Your task to perform on an android device: Search for "macbook pro" on amazon, select the first entry, and add it to the cart. Image 0: 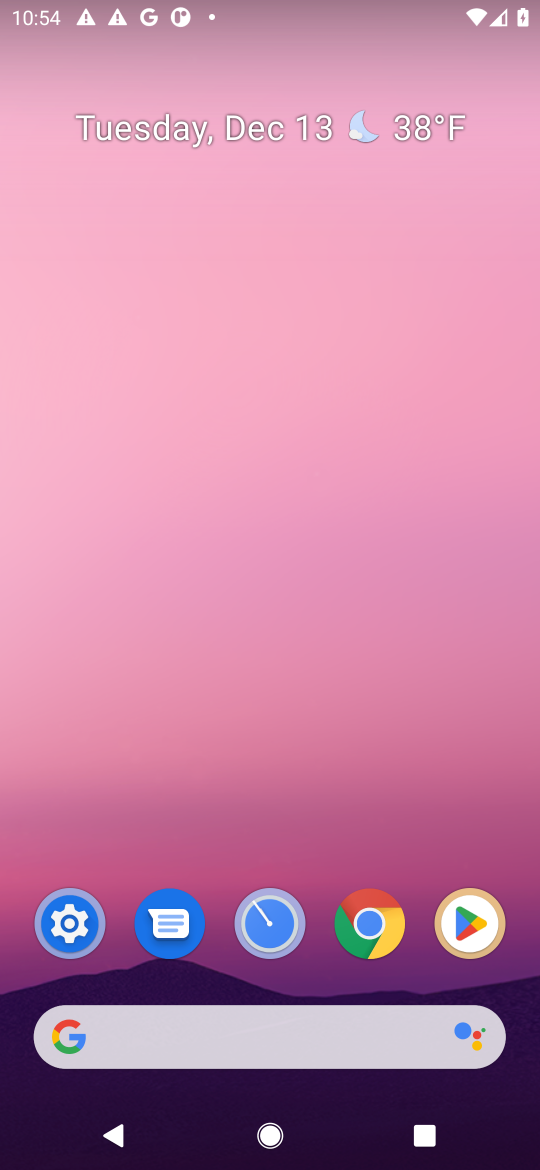
Step 0: click (157, 1028)
Your task to perform on an android device: Search for "macbook pro" on amazon, select the first entry, and add it to the cart. Image 1: 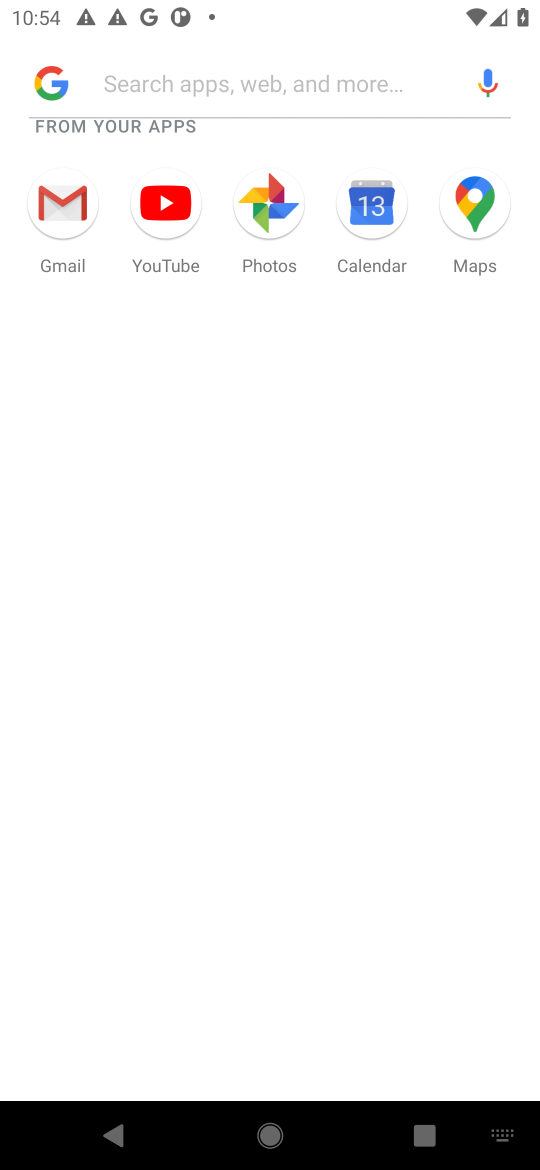
Step 1: press home button
Your task to perform on an android device: Search for "macbook pro" on amazon, select the first entry, and add it to the cart. Image 2: 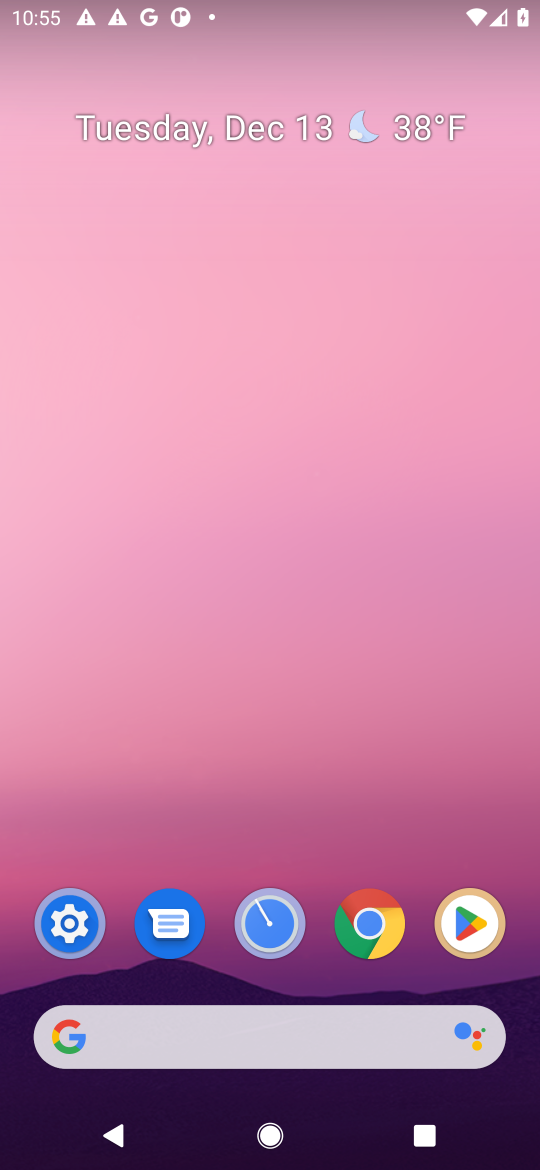
Step 2: click (350, 1037)
Your task to perform on an android device: Search for "macbook pro" on amazon, select the first entry, and add it to the cart. Image 3: 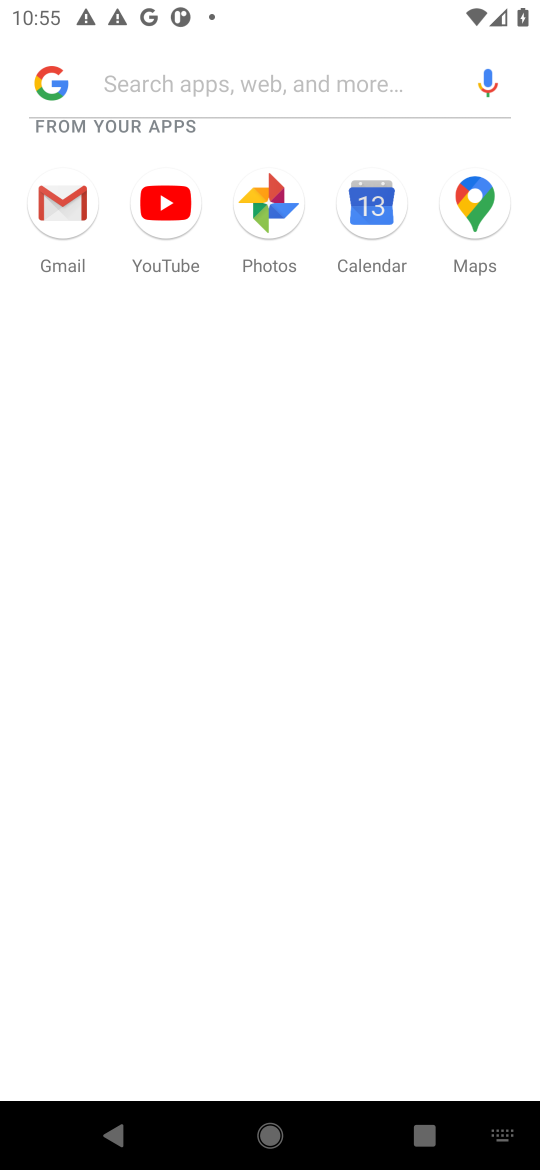
Step 3: press home button
Your task to perform on an android device: Search for "macbook pro" on amazon, select the first entry, and add it to the cart. Image 4: 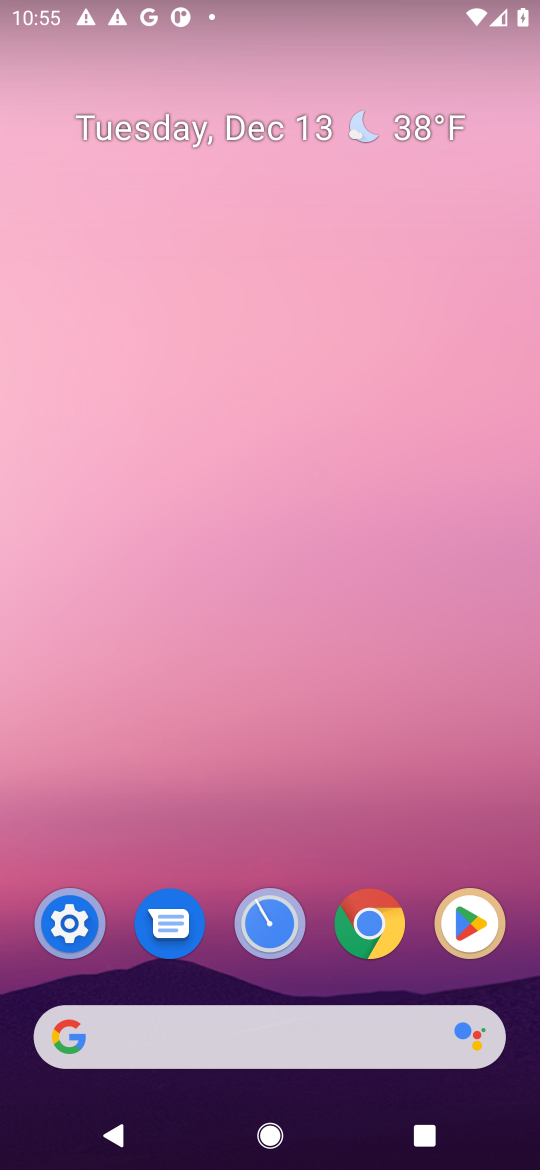
Step 4: click (389, 951)
Your task to perform on an android device: Search for "macbook pro" on amazon, select the first entry, and add it to the cart. Image 5: 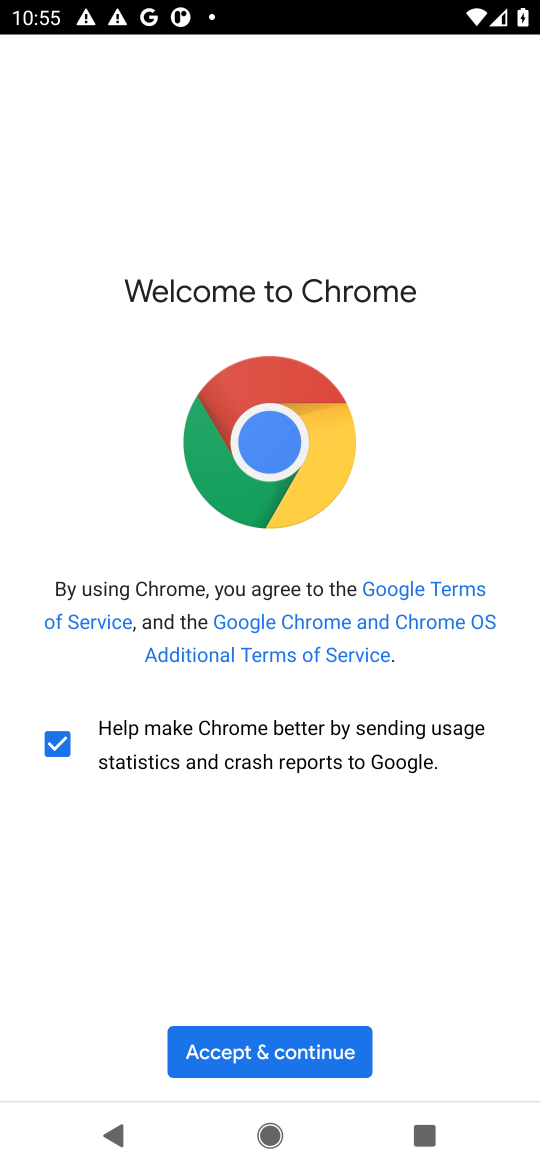
Step 5: click (217, 1045)
Your task to perform on an android device: Search for "macbook pro" on amazon, select the first entry, and add it to the cart. Image 6: 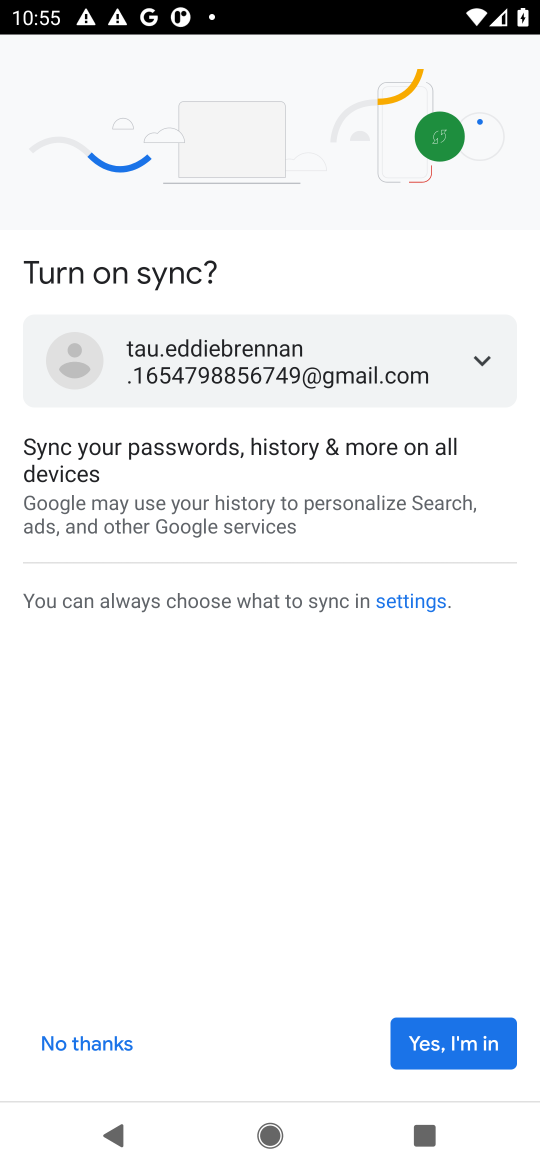
Step 6: click (414, 1065)
Your task to perform on an android device: Search for "macbook pro" on amazon, select the first entry, and add it to the cart. Image 7: 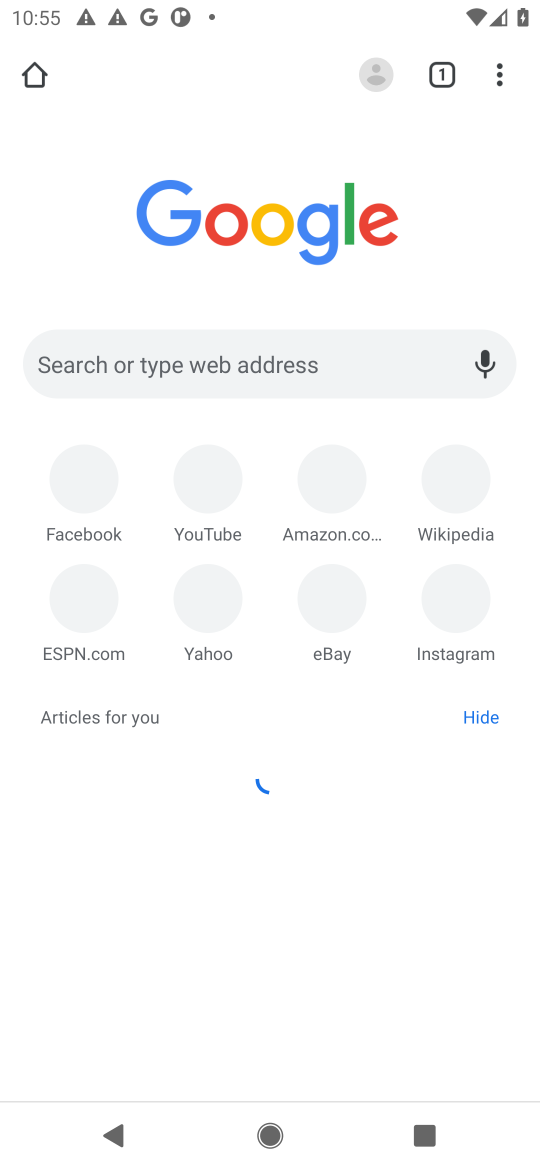
Step 7: click (302, 368)
Your task to perform on an android device: Search for "macbook pro" on amazon, select the first entry, and add it to the cart. Image 8: 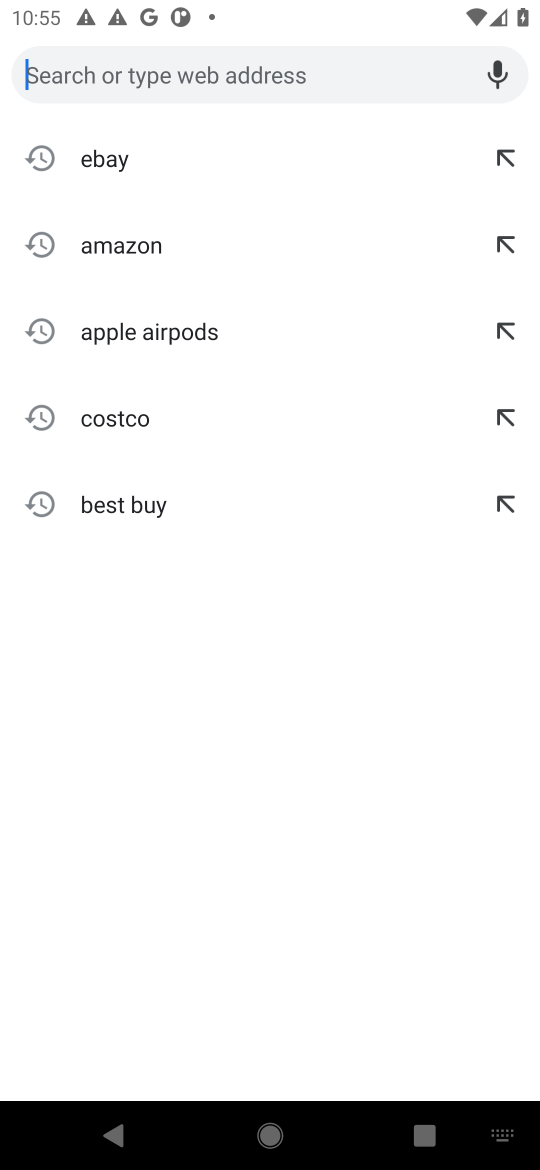
Step 8: type "macbook pro "
Your task to perform on an android device: Search for "macbook pro" on amazon, select the first entry, and add it to the cart. Image 9: 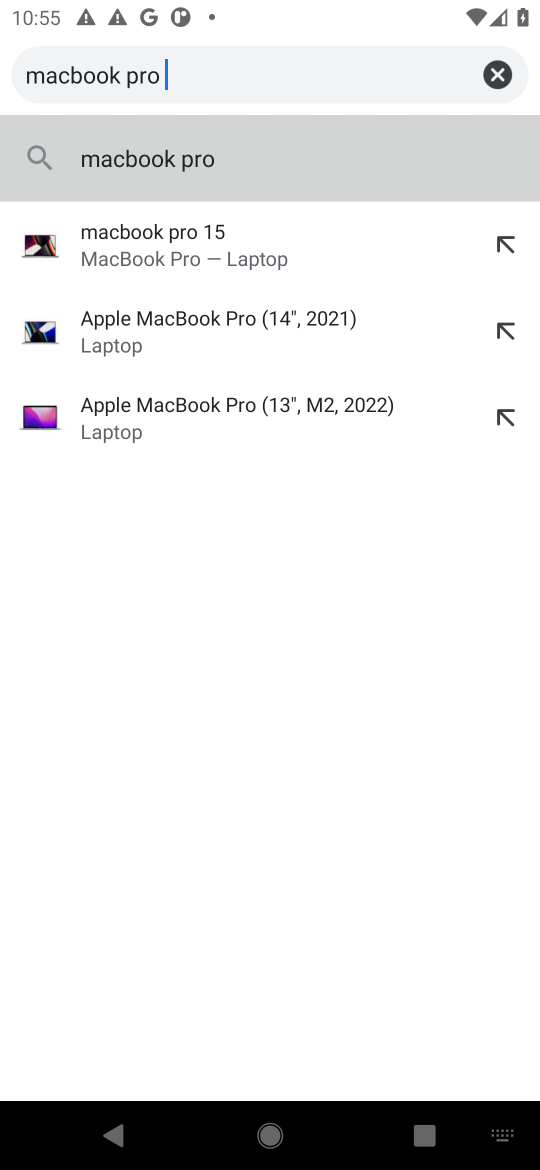
Step 9: click (234, 163)
Your task to perform on an android device: Search for "macbook pro" on amazon, select the first entry, and add it to the cart. Image 10: 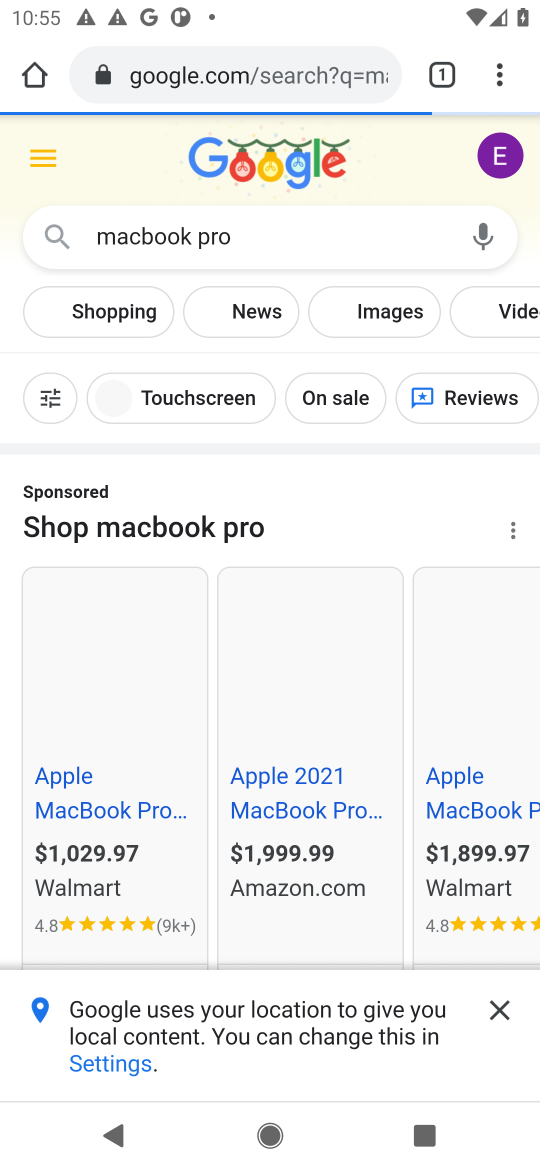
Step 10: click (494, 1016)
Your task to perform on an android device: Search for "macbook pro" on amazon, select the first entry, and add it to the cart. Image 11: 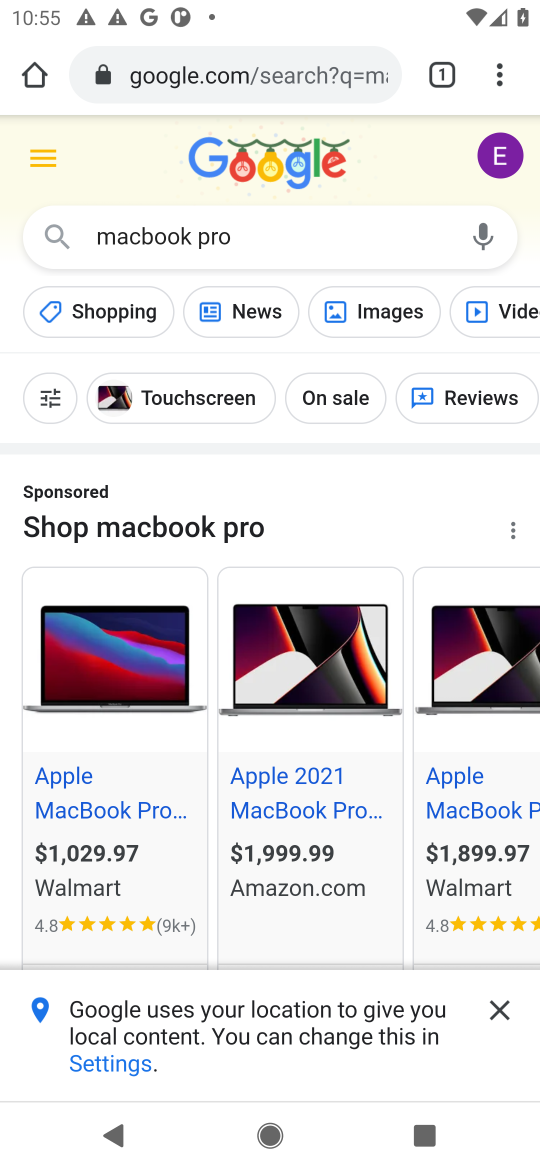
Step 11: click (320, 799)
Your task to perform on an android device: Search for "macbook pro" on amazon, select the first entry, and add it to the cart. Image 12: 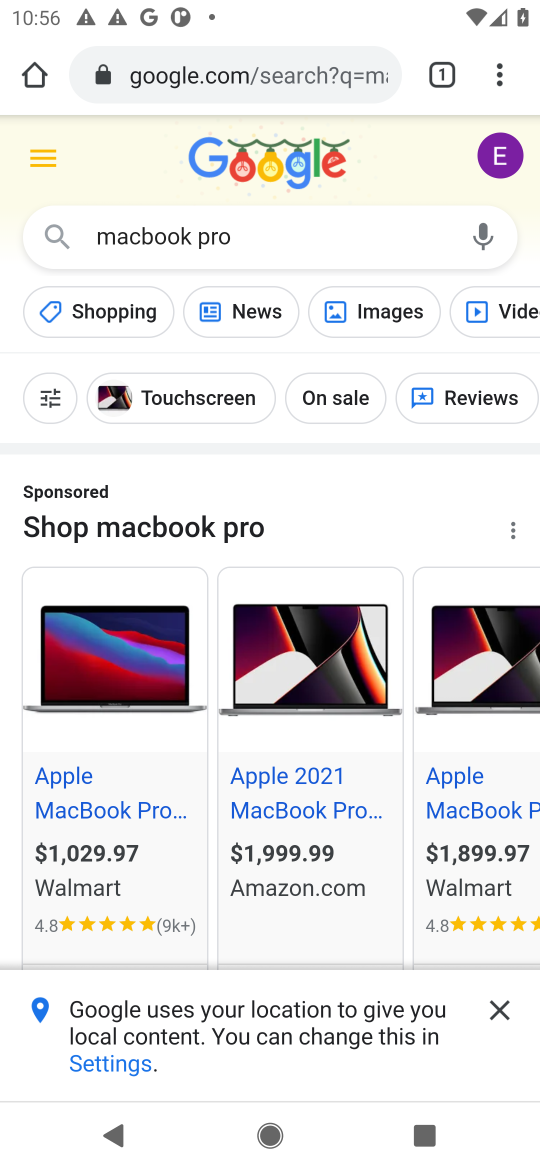
Step 12: click (279, 772)
Your task to perform on an android device: Search for "macbook pro" on amazon, select the first entry, and add it to the cart. Image 13: 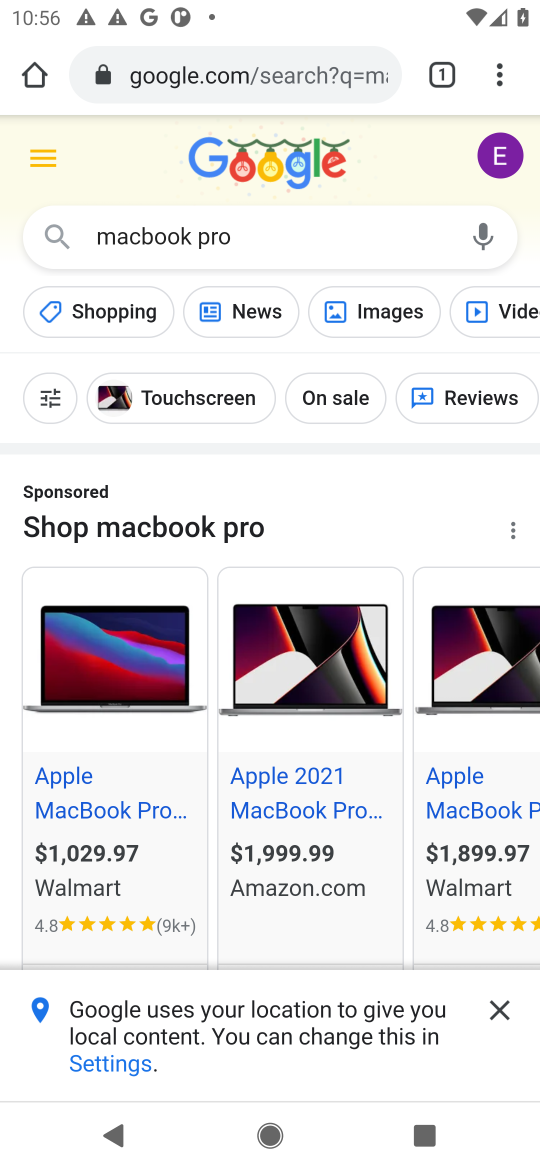
Step 13: click (283, 761)
Your task to perform on an android device: Search for "macbook pro" on amazon, select the first entry, and add it to the cart. Image 14: 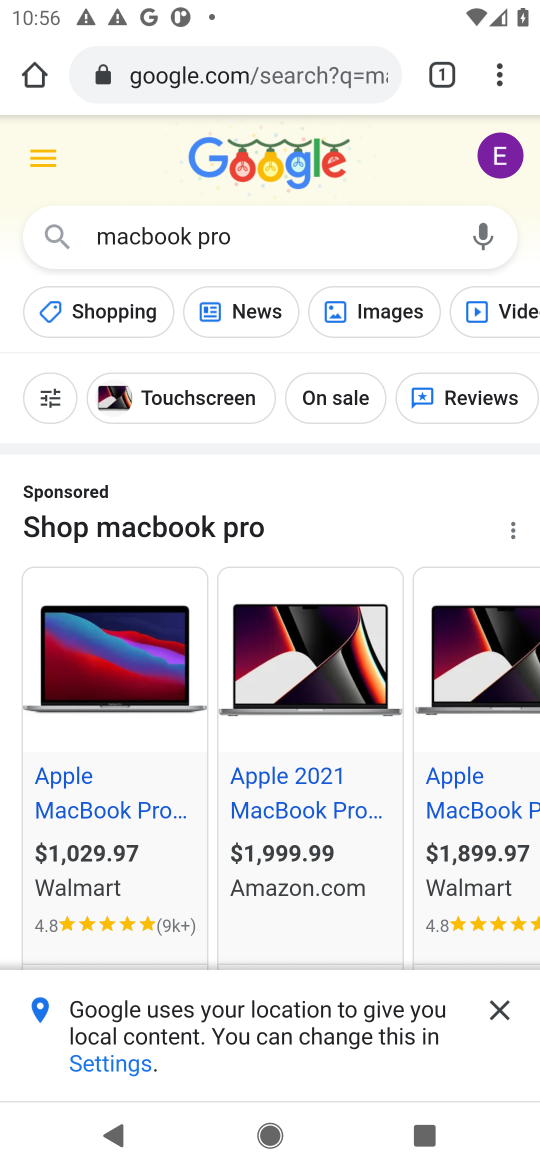
Step 14: click (283, 805)
Your task to perform on an android device: Search for "macbook pro" on amazon, select the first entry, and add it to the cart. Image 15: 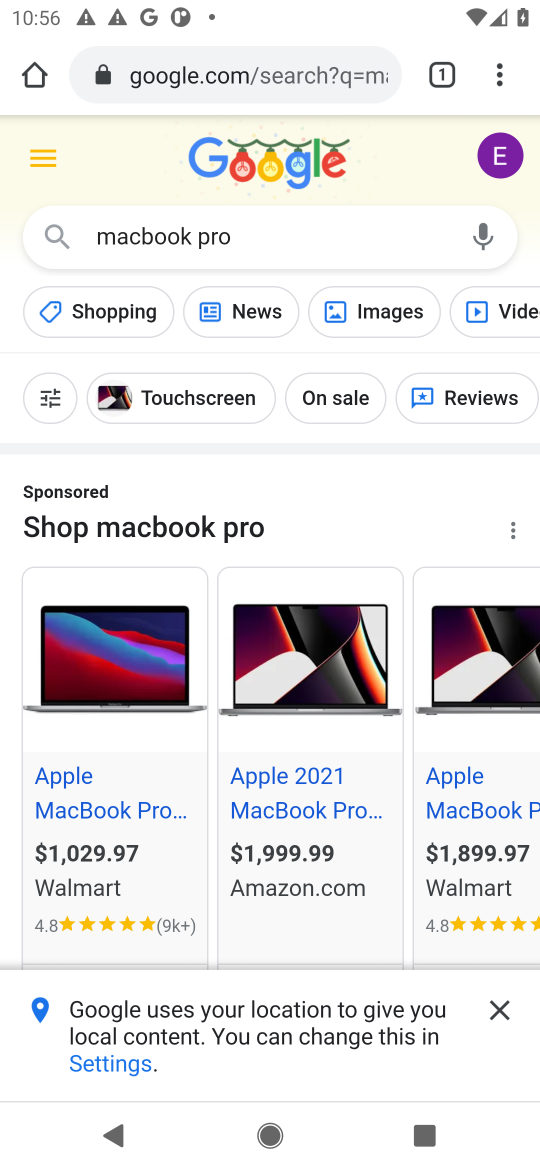
Step 15: click (283, 805)
Your task to perform on an android device: Search for "macbook pro" on amazon, select the first entry, and add it to the cart. Image 16: 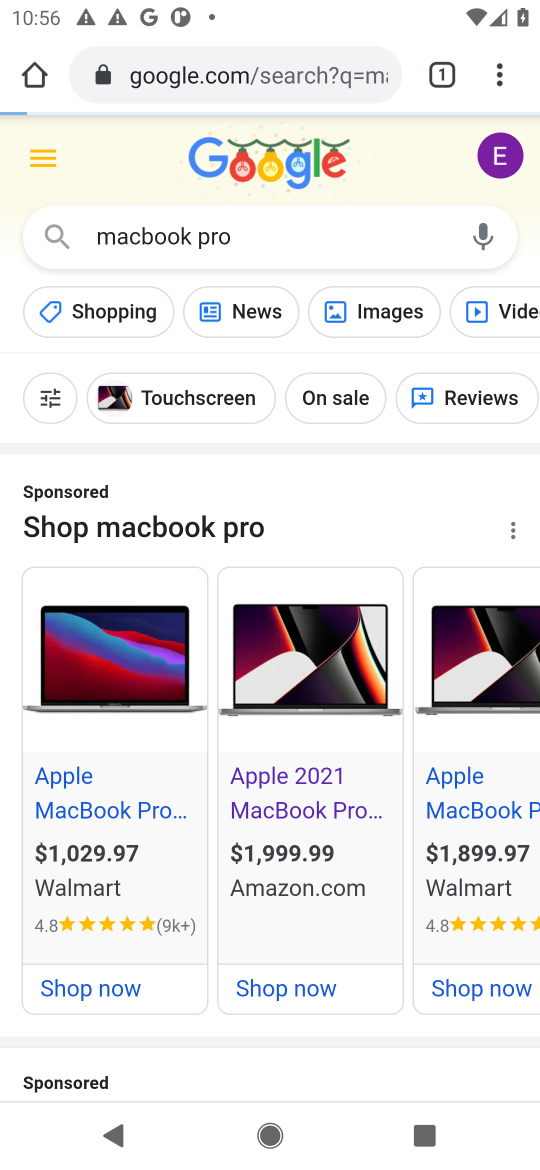
Step 16: task complete